Your task to perform on an android device: Empty the shopping cart on costco. Add bose soundlink to the cart on costco Image 0: 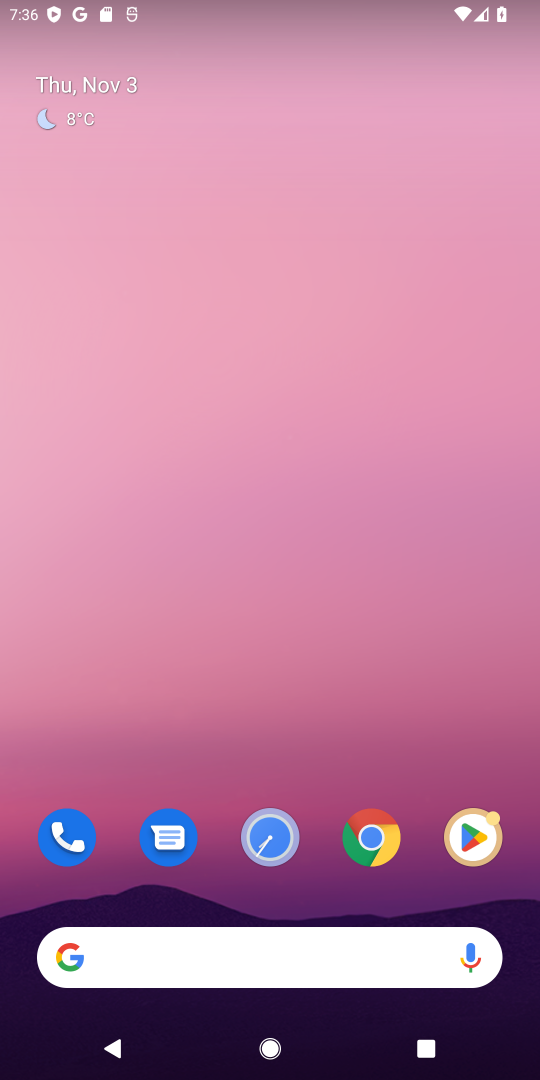
Step 0: click (377, 847)
Your task to perform on an android device: Empty the shopping cart on costco. Add bose soundlink to the cart on costco Image 1: 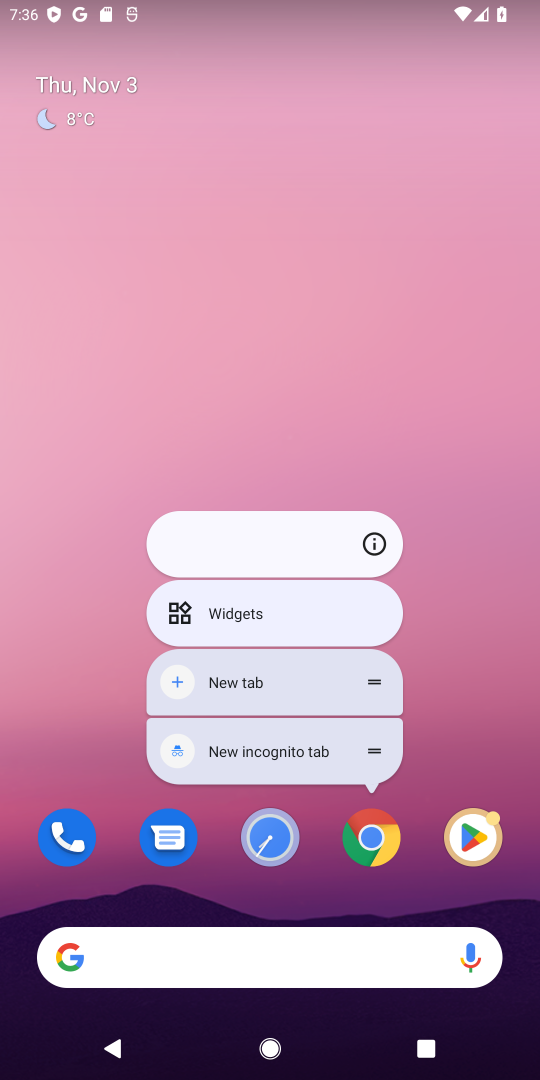
Step 1: click (375, 842)
Your task to perform on an android device: Empty the shopping cart on costco. Add bose soundlink to the cart on costco Image 2: 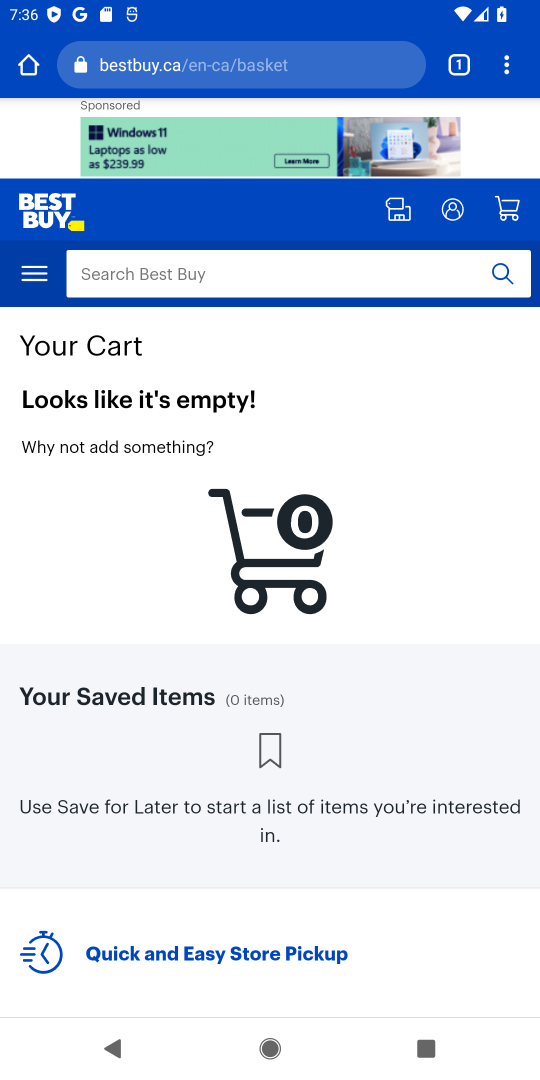
Step 2: click (261, 68)
Your task to perform on an android device: Empty the shopping cart on costco. Add bose soundlink to the cart on costco Image 3: 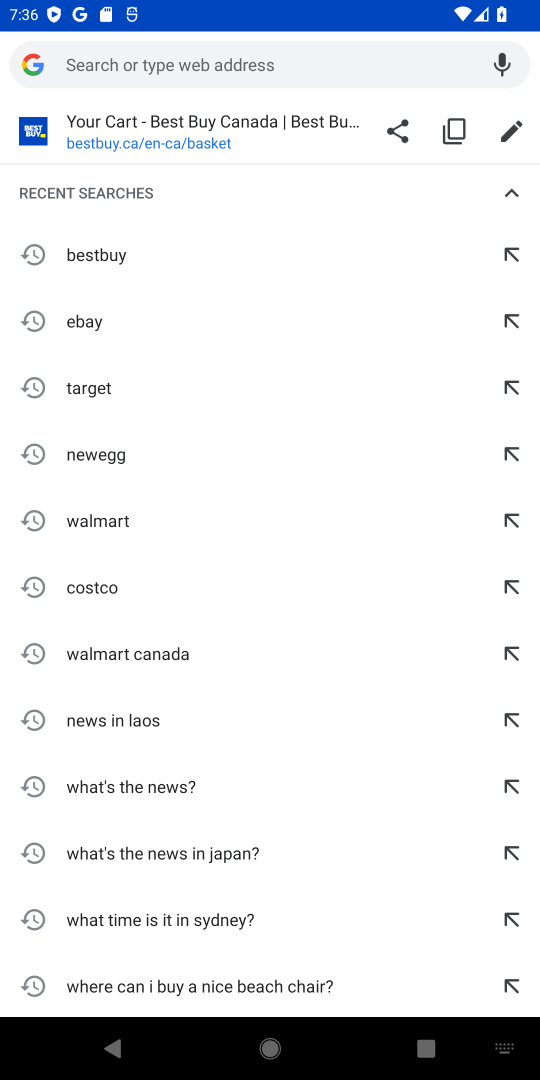
Step 3: click (84, 586)
Your task to perform on an android device: Empty the shopping cart on costco. Add bose soundlink to the cart on costco Image 4: 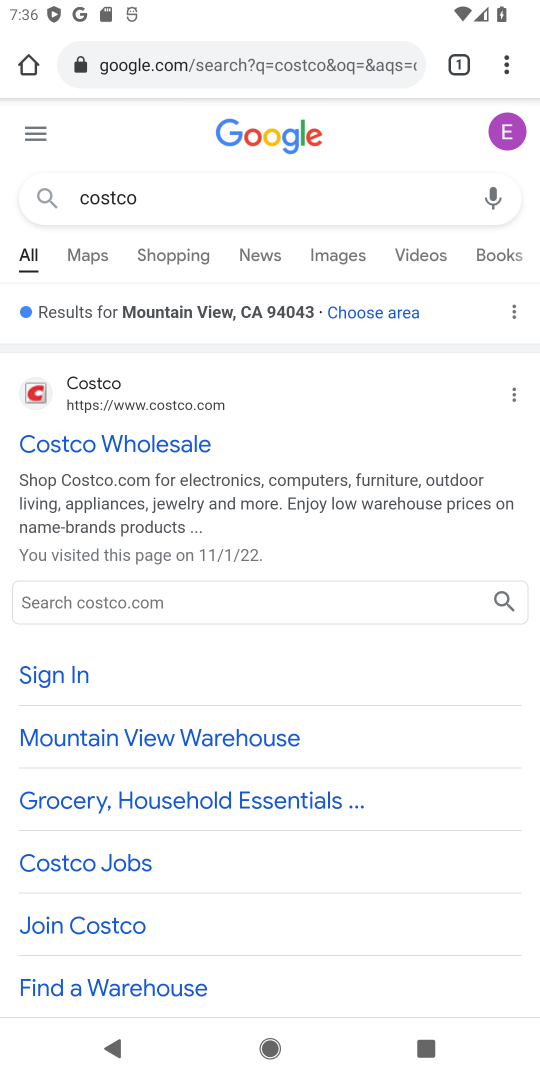
Step 4: click (146, 444)
Your task to perform on an android device: Empty the shopping cart on costco. Add bose soundlink to the cart on costco Image 5: 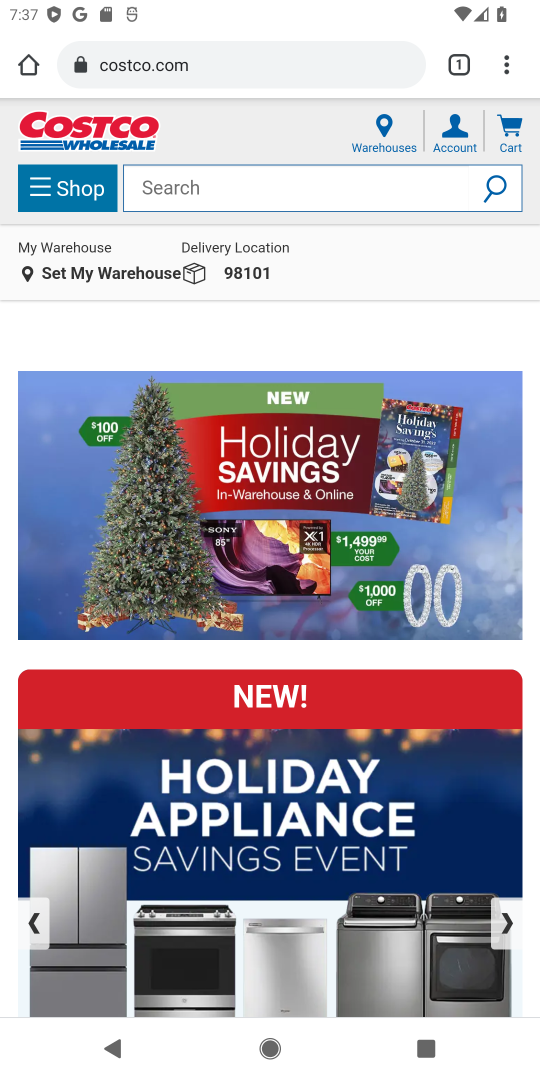
Step 5: click (330, 186)
Your task to perform on an android device: Empty the shopping cart on costco. Add bose soundlink to the cart on costco Image 6: 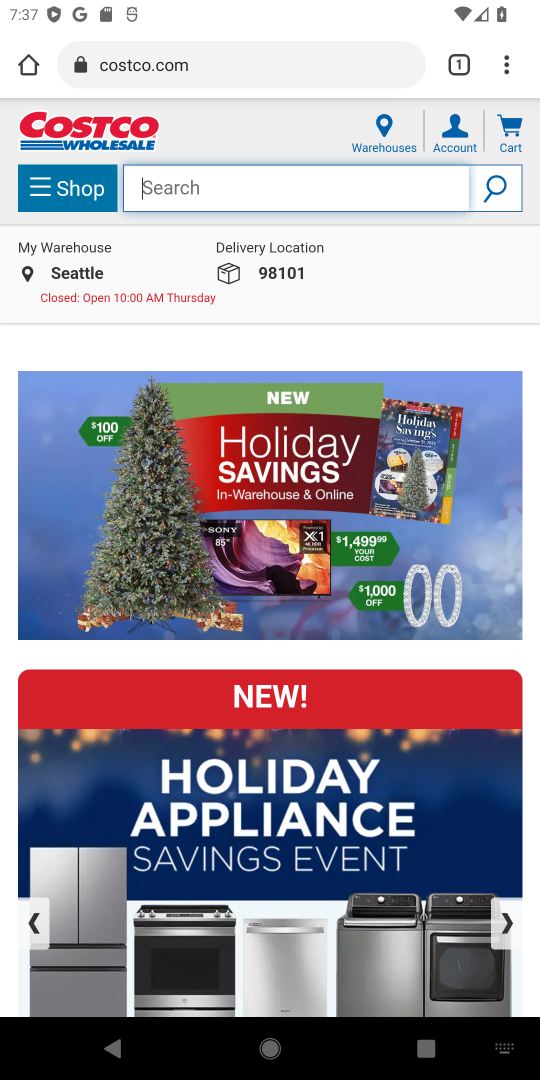
Step 6: press enter
Your task to perform on an android device: Empty the shopping cart on costco. Add bose soundlink to the cart on costco Image 7: 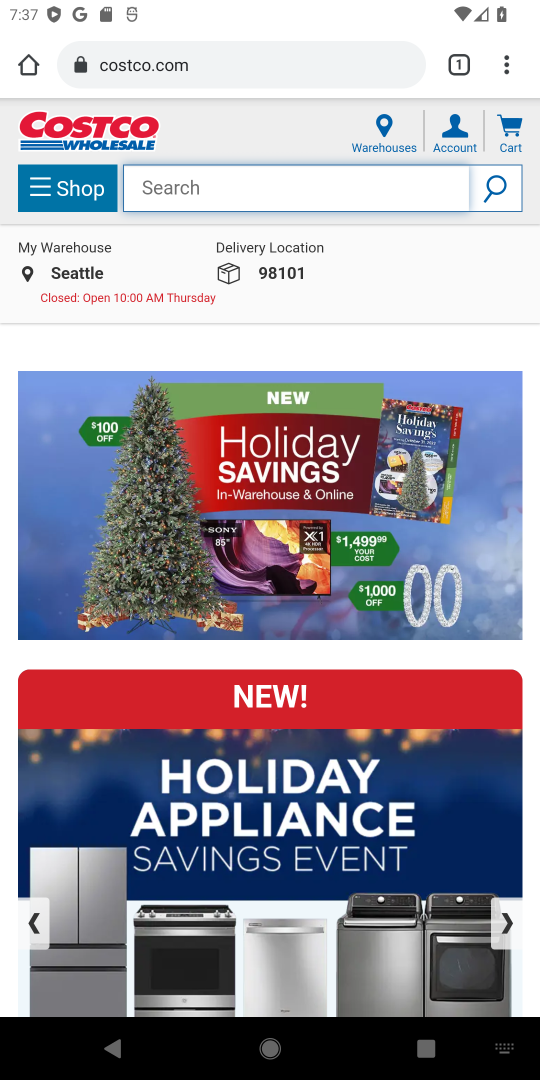
Step 7: type "bose soundlink "
Your task to perform on an android device: Empty the shopping cart on costco. Add bose soundlink to the cart on costco Image 8: 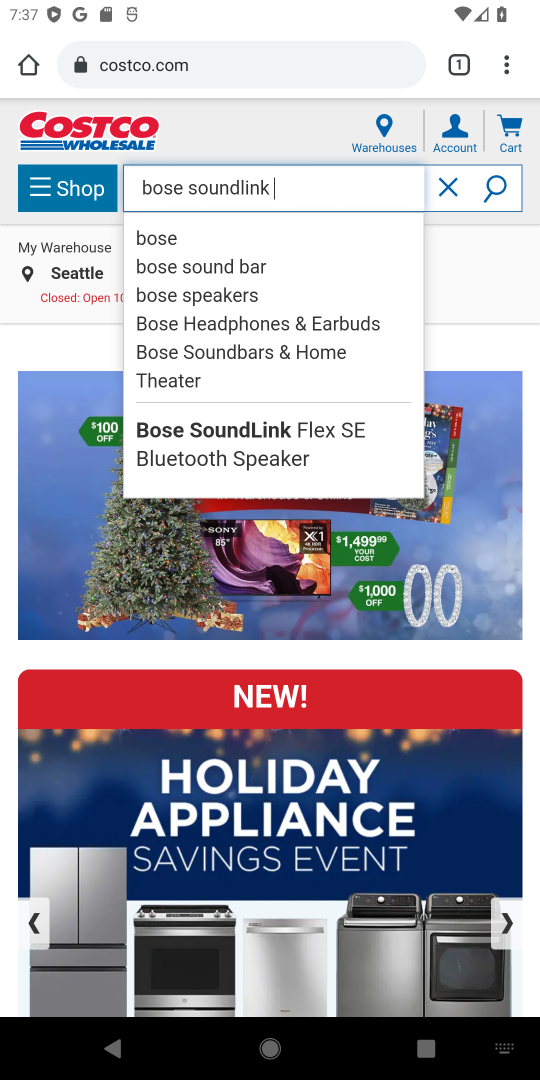
Step 8: press enter
Your task to perform on an android device: Empty the shopping cart on costco. Add bose soundlink to the cart on costco Image 9: 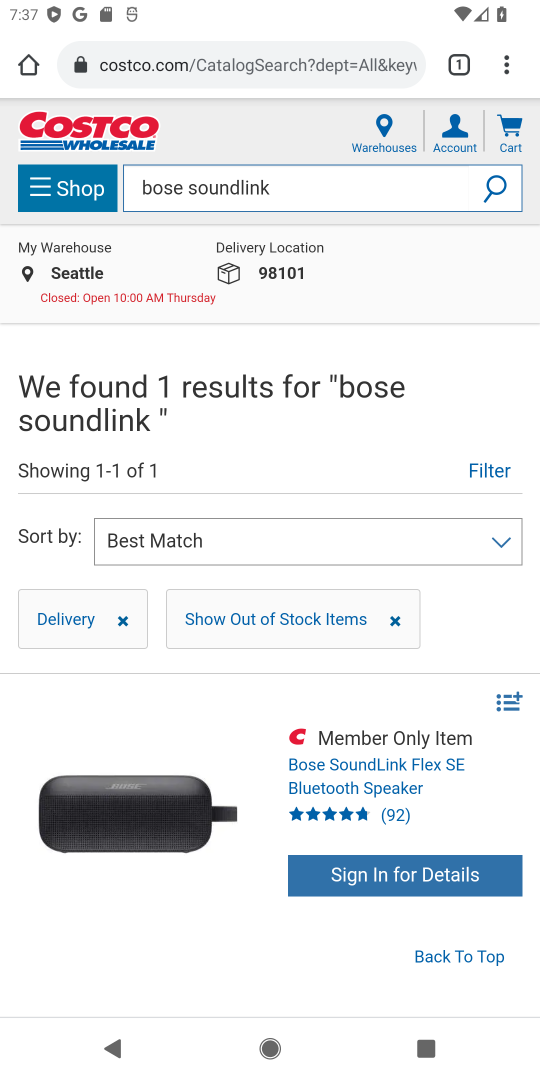
Step 9: drag from (263, 755) to (404, 479)
Your task to perform on an android device: Empty the shopping cart on costco. Add bose soundlink to the cart on costco Image 10: 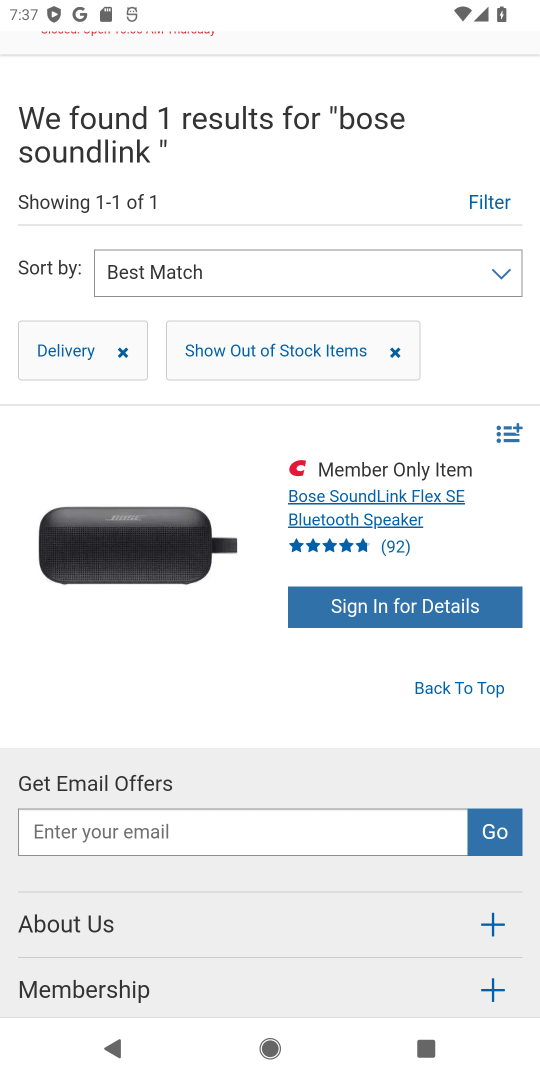
Step 10: drag from (250, 787) to (411, 443)
Your task to perform on an android device: Empty the shopping cart on costco. Add bose soundlink to the cart on costco Image 11: 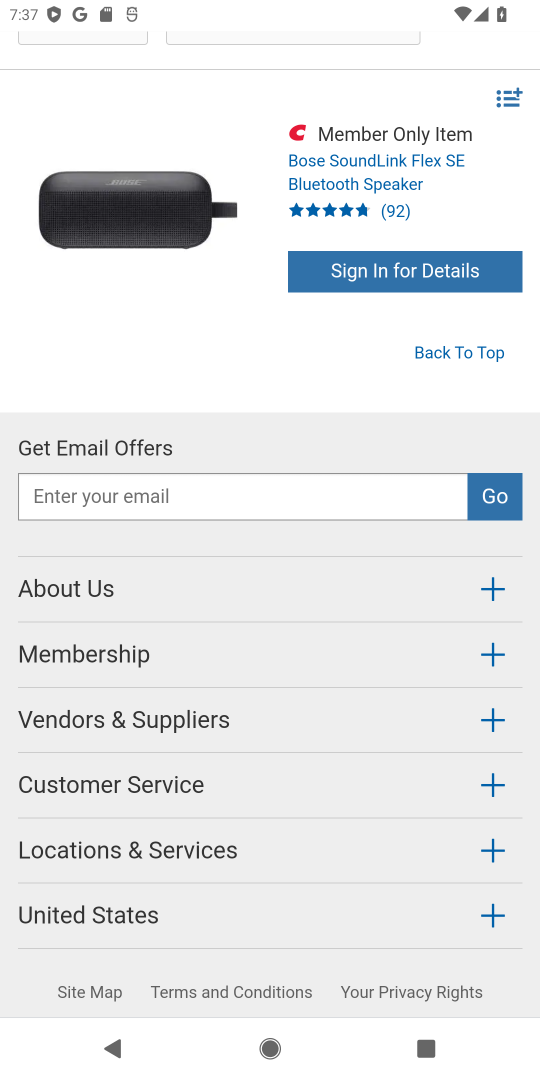
Step 11: drag from (411, 440) to (349, 800)
Your task to perform on an android device: Empty the shopping cart on costco. Add bose soundlink to the cart on costco Image 12: 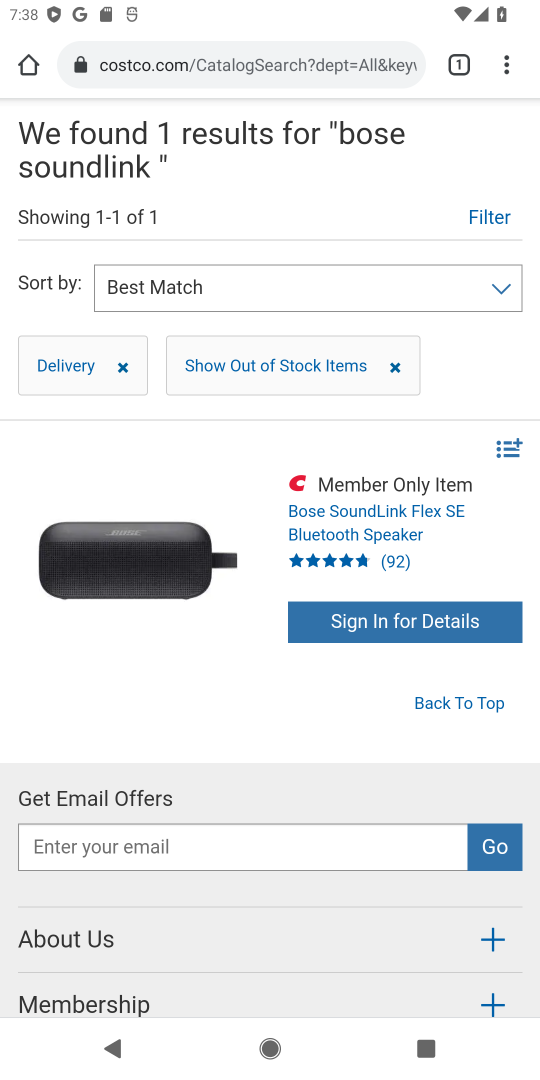
Step 12: click (378, 530)
Your task to perform on an android device: Empty the shopping cart on costco. Add bose soundlink to the cart on costco Image 13: 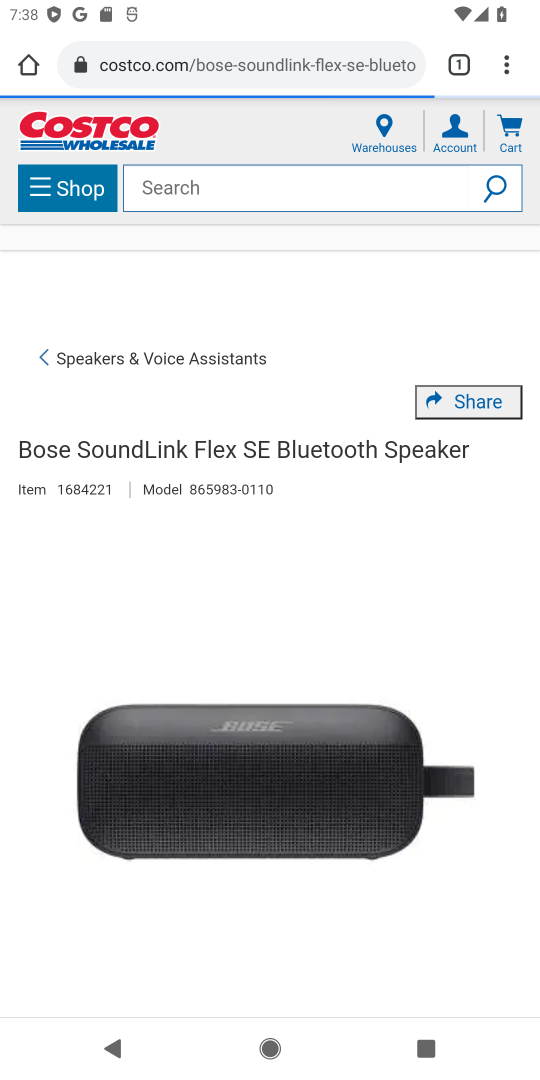
Step 13: task complete